Your task to perform on an android device: turn on wifi Image 0: 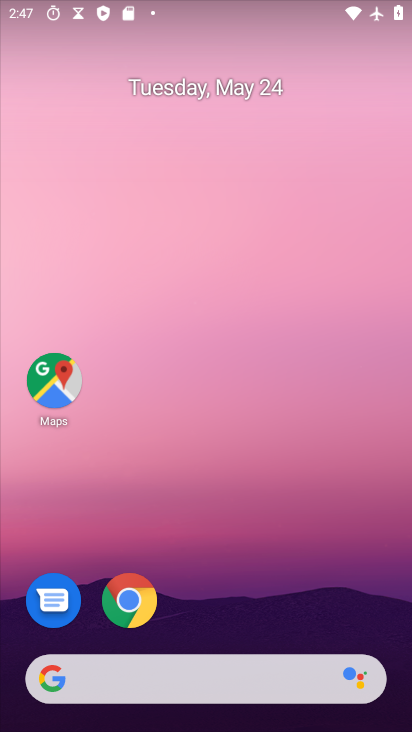
Step 0: drag from (257, 495) to (178, 99)
Your task to perform on an android device: turn on wifi Image 1: 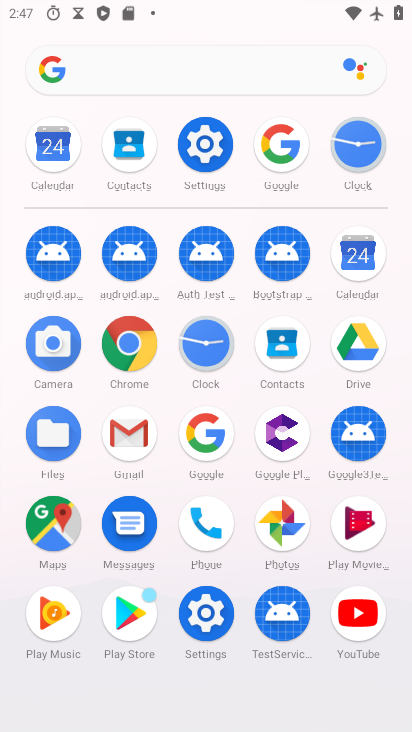
Step 1: click (200, 149)
Your task to perform on an android device: turn on wifi Image 2: 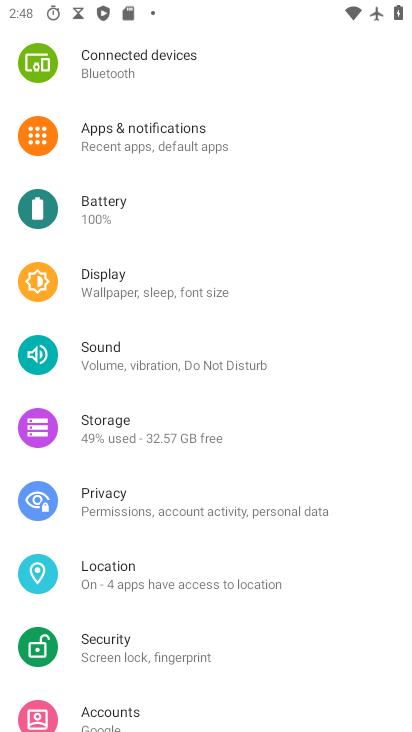
Step 2: drag from (229, 147) to (230, 671)
Your task to perform on an android device: turn on wifi Image 3: 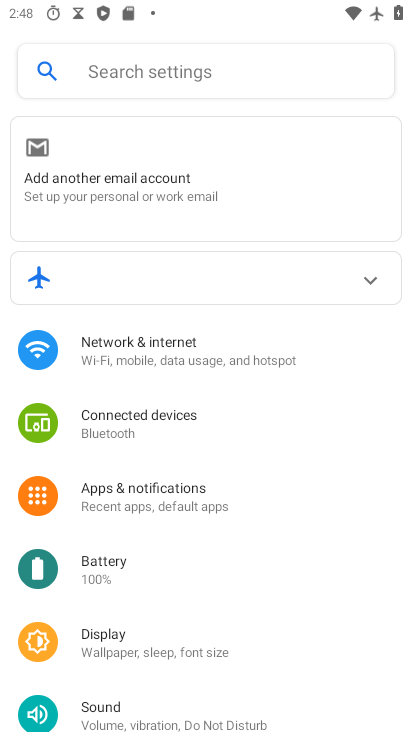
Step 3: click (216, 354)
Your task to perform on an android device: turn on wifi Image 4: 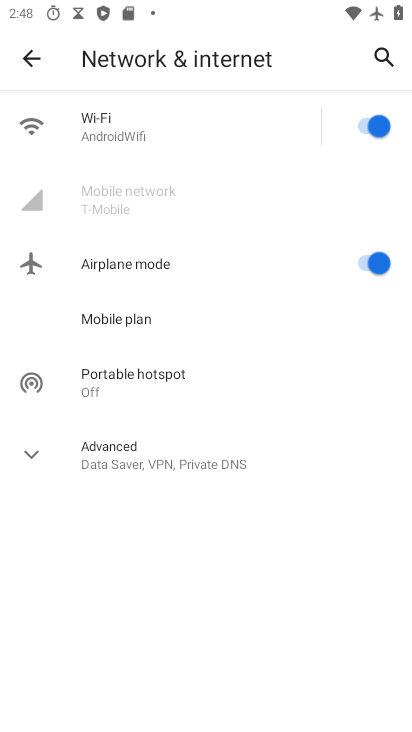
Step 4: task complete